Your task to perform on an android device: install app "Nova Launcher" Image 0: 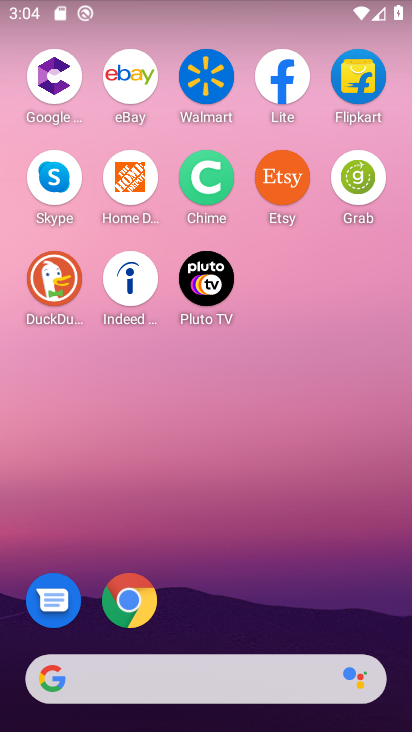
Step 0: drag from (262, 603) to (352, 8)
Your task to perform on an android device: install app "Nova Launcher" Image 1: 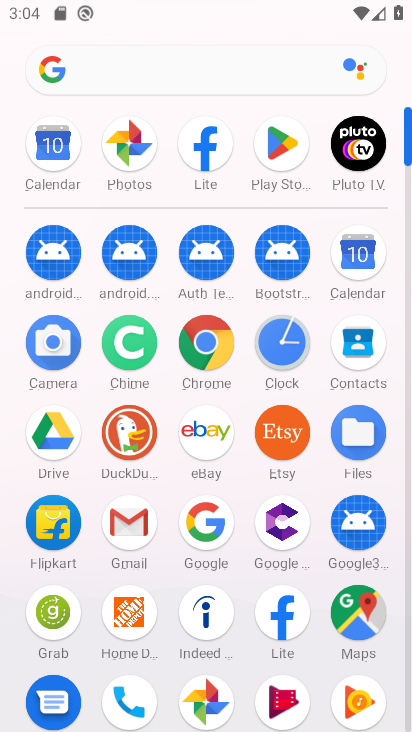
Step 1: click (274, 140)
Your task to perform on an android device: install app "Nova Launcher" Image 2: 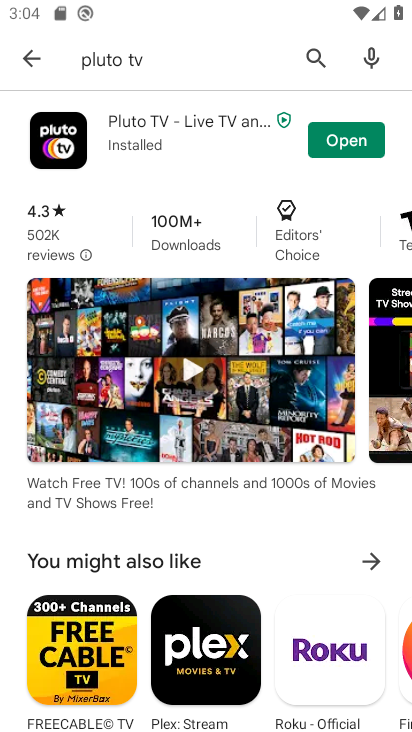
Step 2: click (312, 63)
Your task to perform on an android device: install app "Nova Launcher" Image 3: 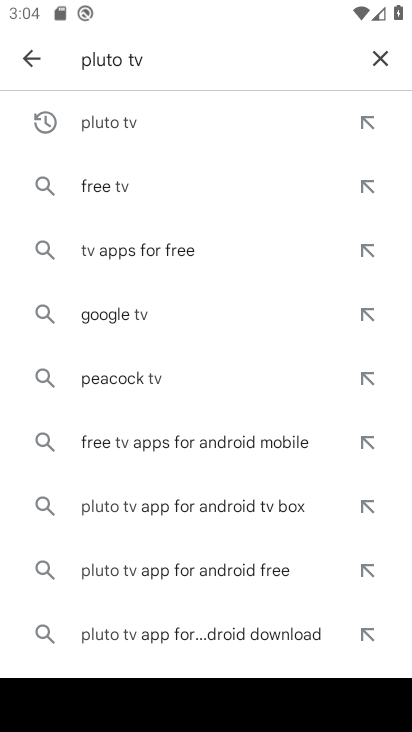
Step 3: click (393, 56)
Your task to perform on an android device: install app "Nova Launcher" Image 4: 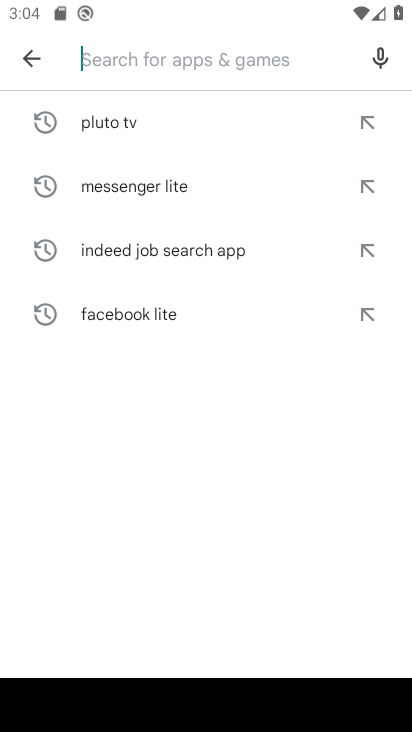
Step 4: click (117, 46)
Your task to perform on an android device: install app "Nova Launcher" Image 5: 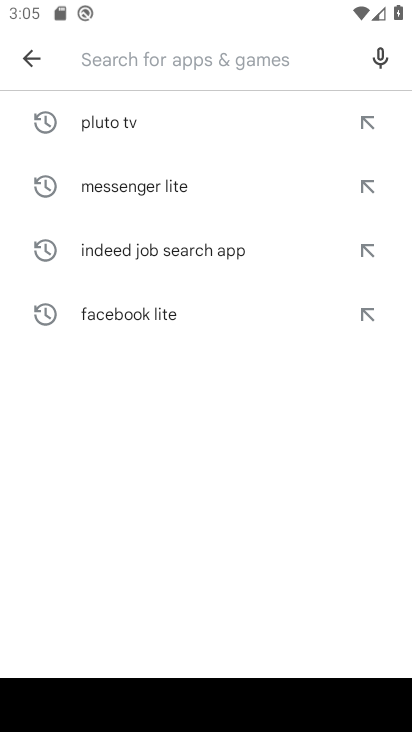
Step 5: type "Nova Launcher"
Your task to perform on an android device: install app "Nova Launcher" Image 6: 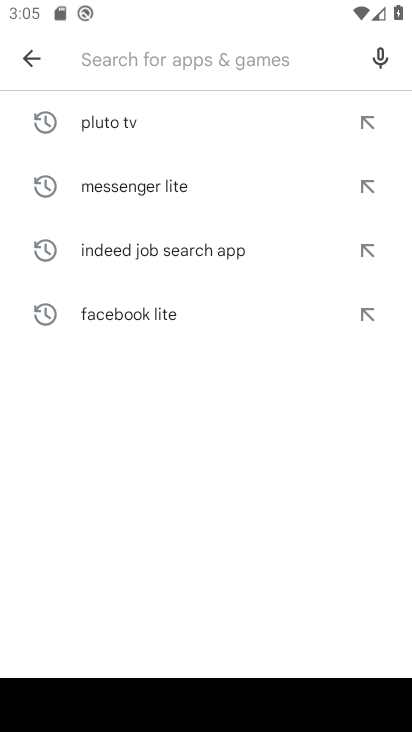
Step 6: click (128, 470)
Your task to perform on an android device: install app "Nova Launcher" Image 7: 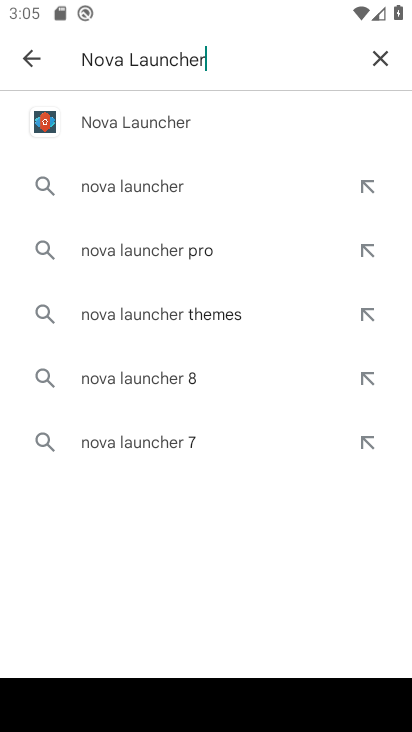
Step 7: click (119, 127)
Your task to perform on an android device: install app "Nova Launcher" Image 8: 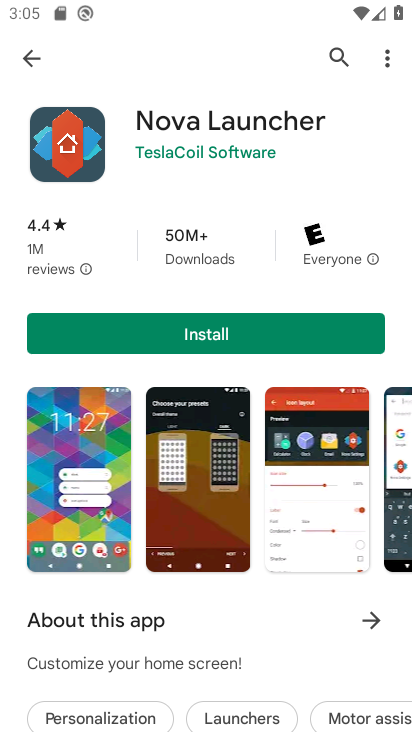
Step 8: click (214, 337)
Your task to perform on an android device: install app "Nova Launcher" Image 9: 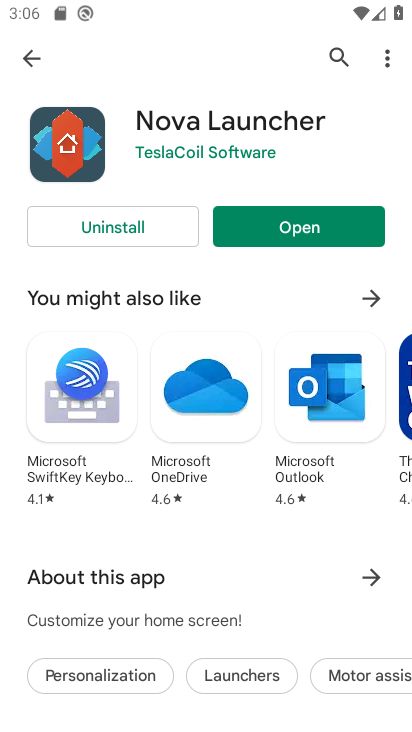
Step 9: task complete